Your task to perform on an android device: Go to settings Image 0: 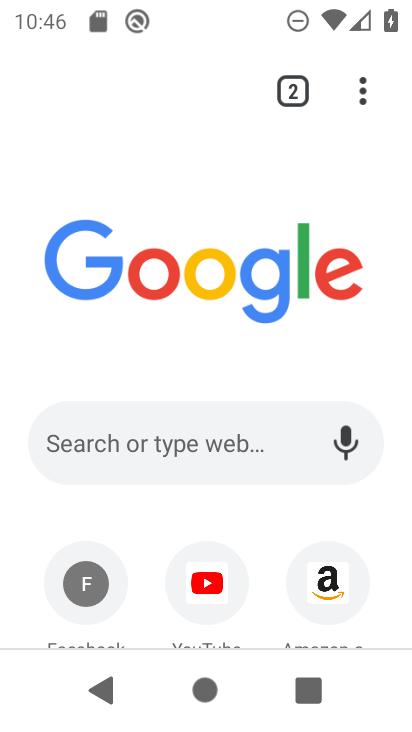
Step 0: drag from (200, 542) to (234, 229)
Your task to perform on an android device: Go to settings Image 1: 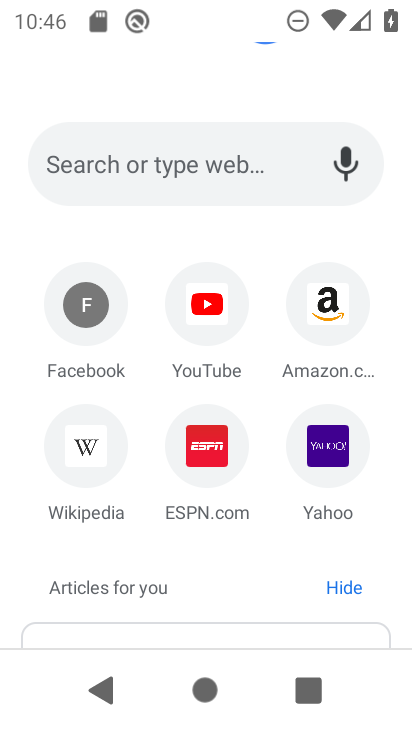
Step 1: press home button
Your task to perform on an android device: Go to settings Image 2: 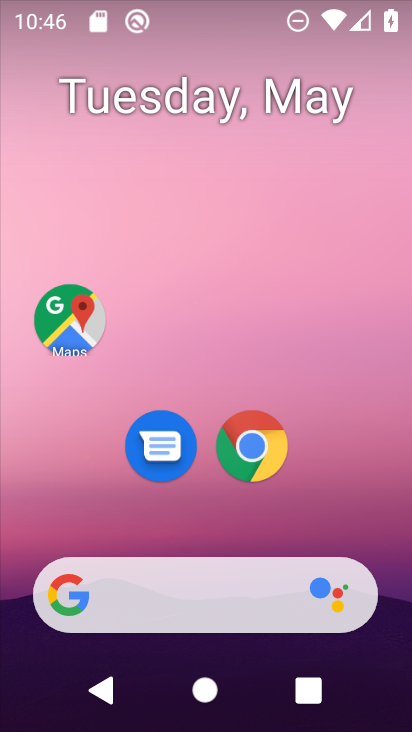
Step 2: drag from (191, 516) to (238, 24)
Your task to perform on an android device: Go to settings Image 3: 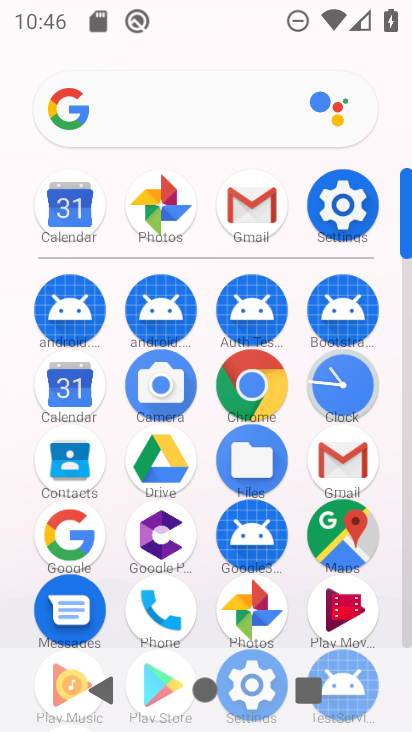
Step 3: click (343, 201)
Your task to perform on an android device: Go to settings Image 4: 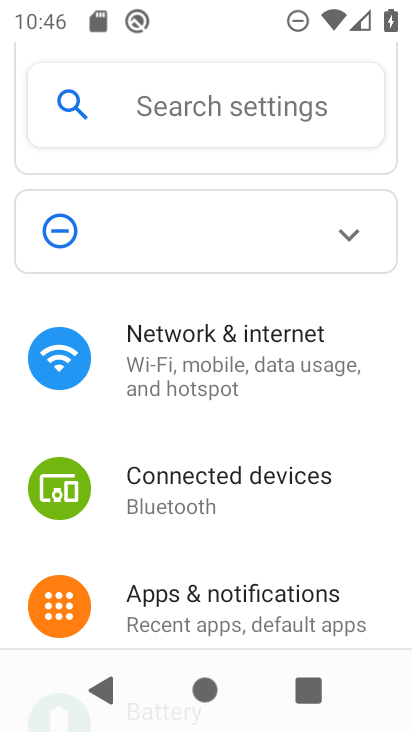
Step 4: task complete